Your task to perform on an android device: Search for pizza restaurants on Maps Image 0: 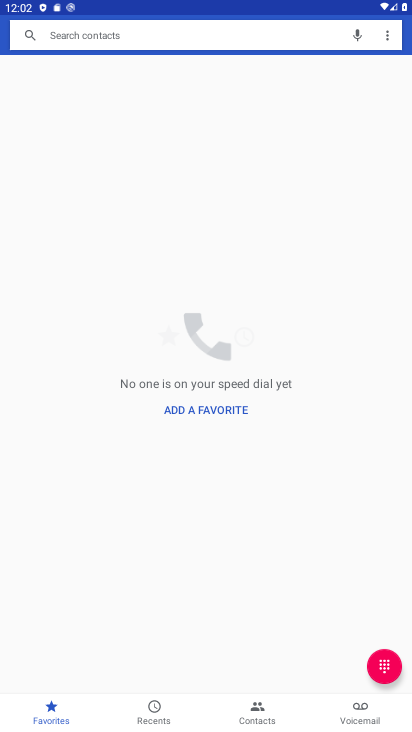
Step 0: press home button
Your task to perform on an android device: Search for pizza restaurants on Maps Image 1: 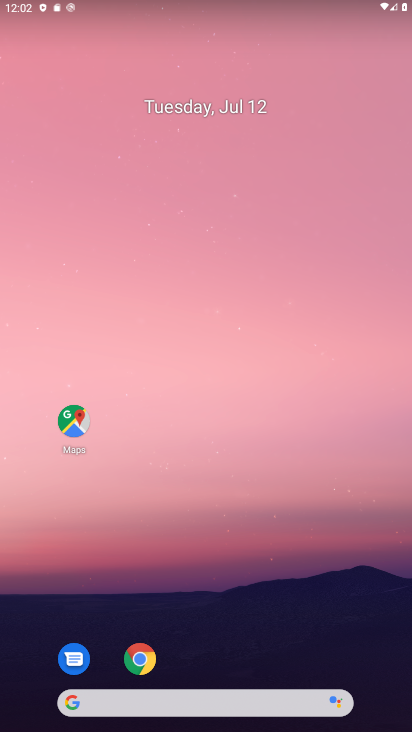
Step 1: drag from (227, 665) to (207, 574)
Your task to perform on an android device: Search for pizza restaurants on Maps Image 2: 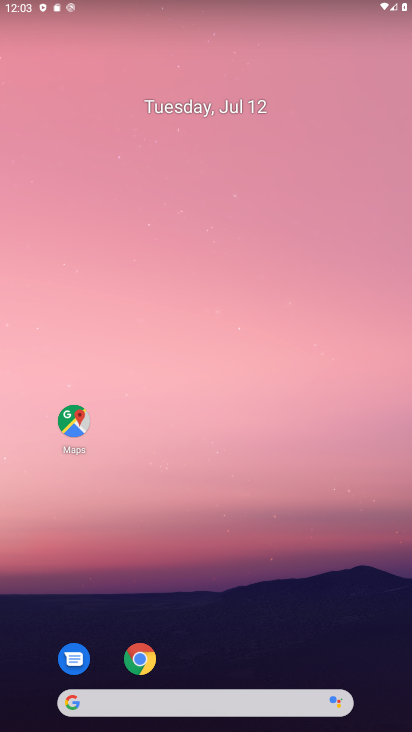
Step 2: click (63, 433)
Your task to perform on an android device: Search for pizza restaurants on Maps Image 3: 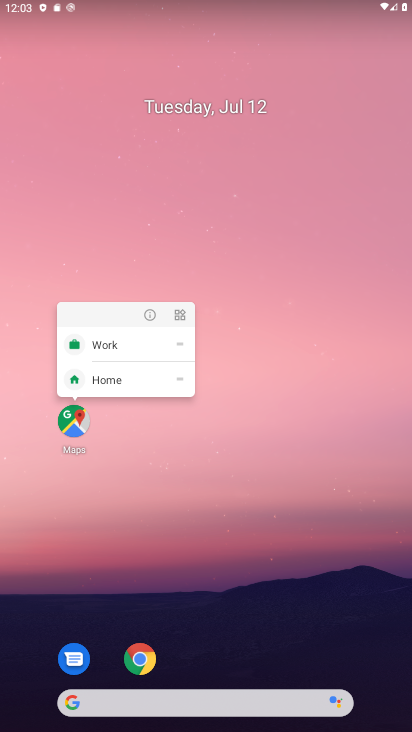
Step 3: click (75, 415)
Your task to perform on an android device: Search for pizza restaurants on Maps Image 4: 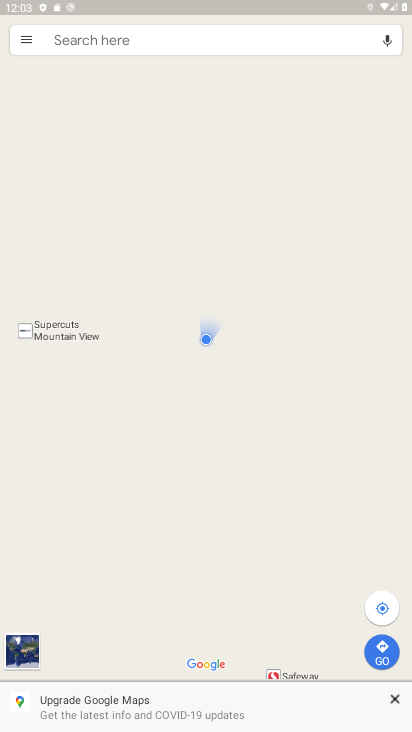
Step 4: click (102, 38)
Your task to perform on an android device: Search for pizza restaurants on Maps Image 5: 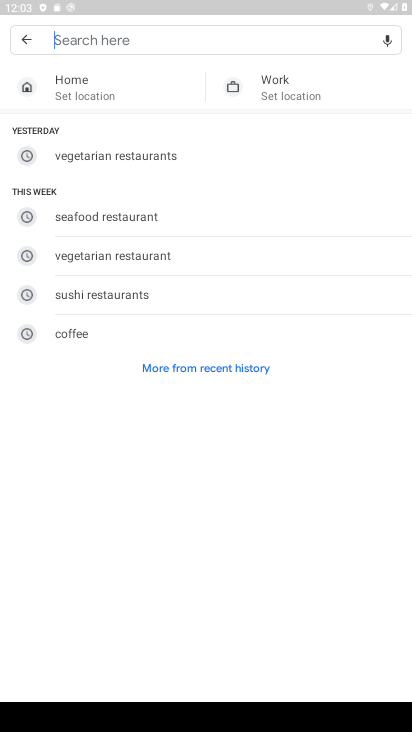
Step 5: type "pizza restaurant"
Your task to perform on an android device: Search for pizza restaurants on Maps Image 6: 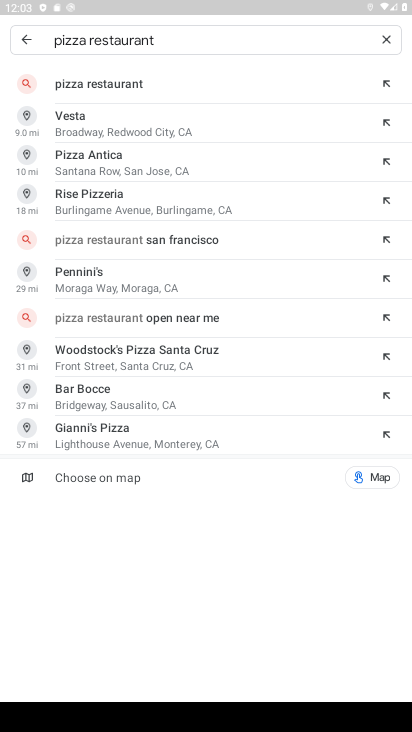
Step 6: click (216, 72)
Your task to perform on an android device: Search for pizza restaurants on Maps Image 7: 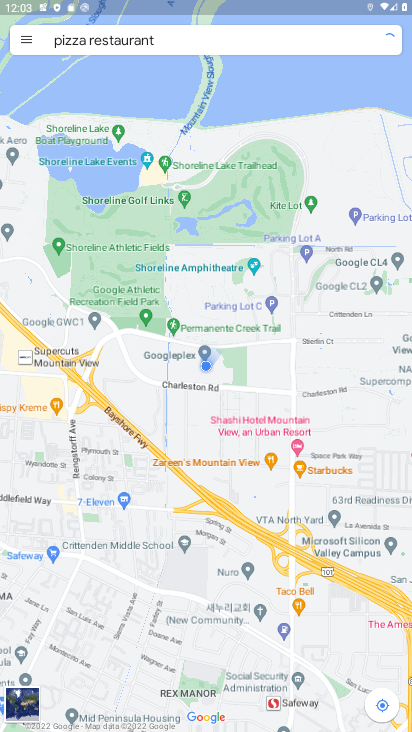
Step 7: task complete